Your task to perform on an android device: Go to display settings Image 0: 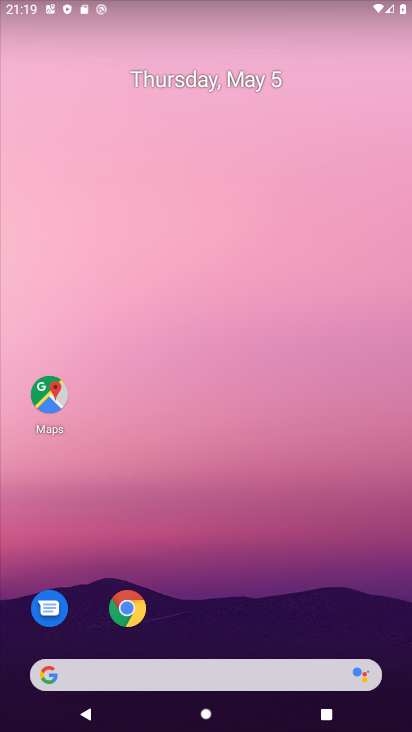
Step 0: drag from (287, 706) to (268, 87)
Your task to perform on an android device: Go to display settings Image 1: 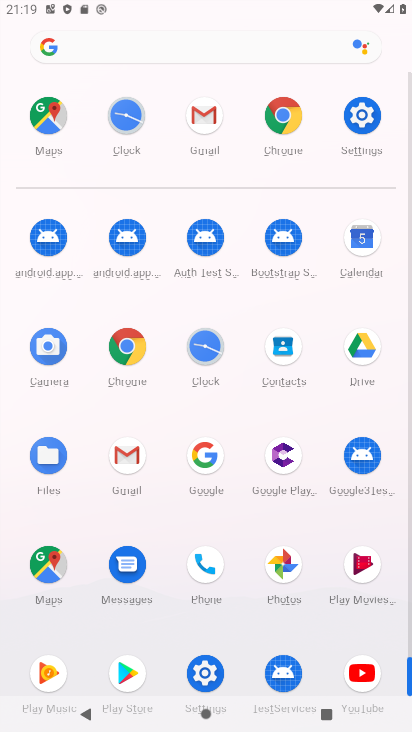
Step 1: click (367, 123)
Your task to perform on an android device: Go to display settings Image 2: 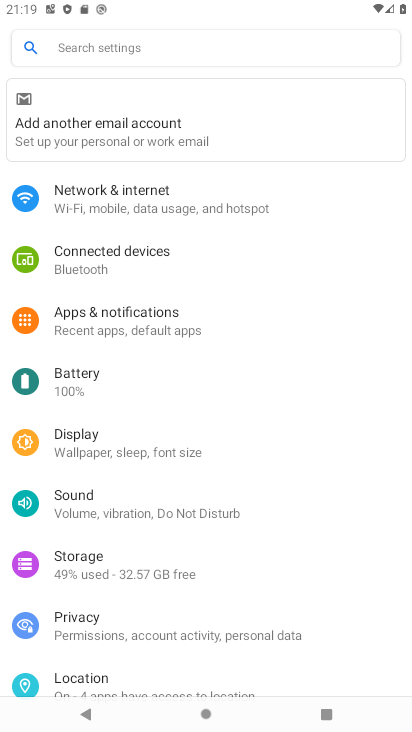
Step 2: click (177, 440)
Your task to perform on an android device: Go to display settings Image 3: 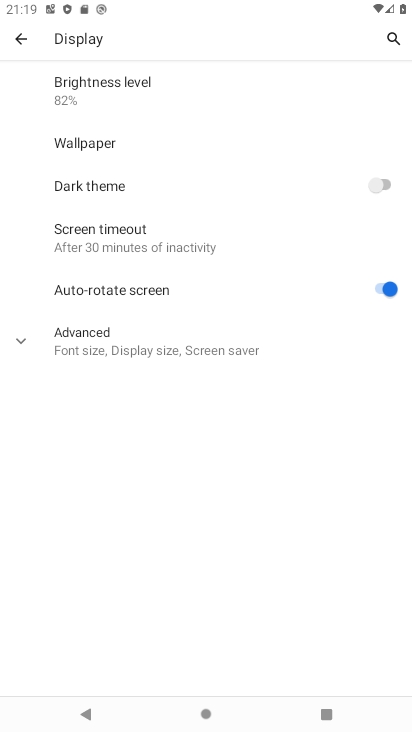
Step 3: task complete